Your task to perform on an android device: Go to battery settings Image 0: 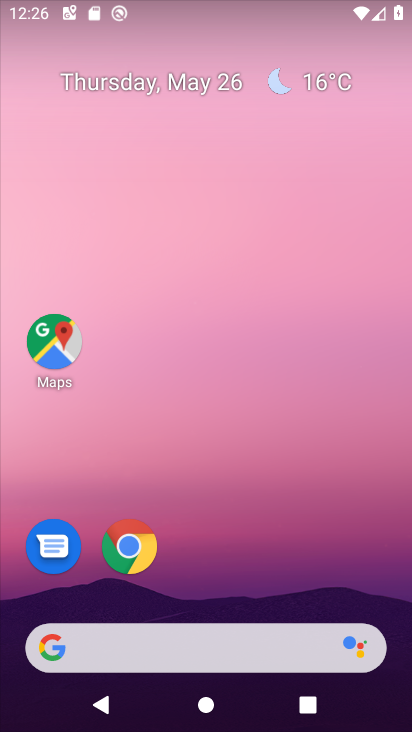
Step 0: drag from (179, 586) to (200, 189)
Your task to perform on an android device: Go to battery settings Image 1: 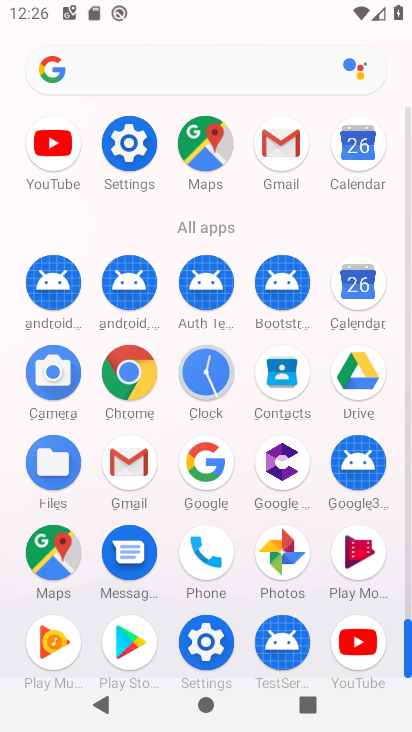
Step 1: click (128, 142)
Your task to perform on an android device: Go to battery settings Image 2: 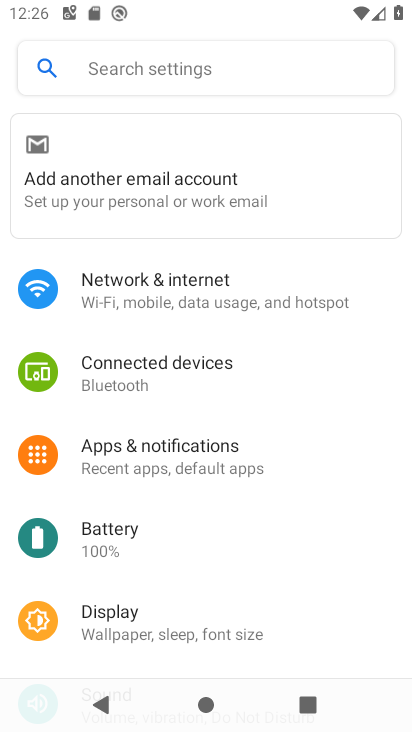
Step 2: drag from (164, 591) to (203, 291)
Your task to perform on an android device: Go to battery settings Image 3: 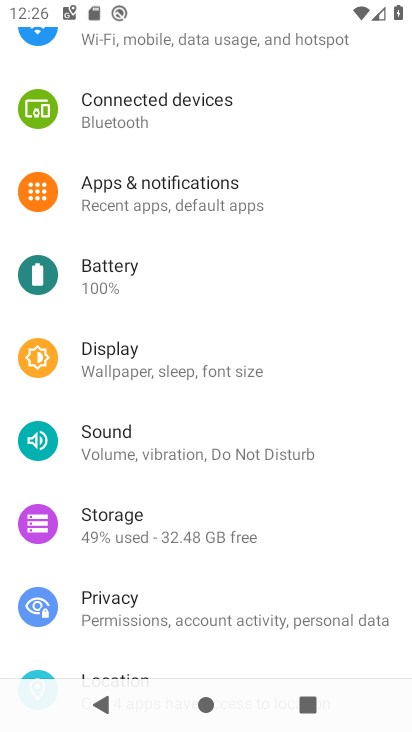
Step 3: click (94, 275)
Your task to perform on an android device: Go to battery settings Image 4: 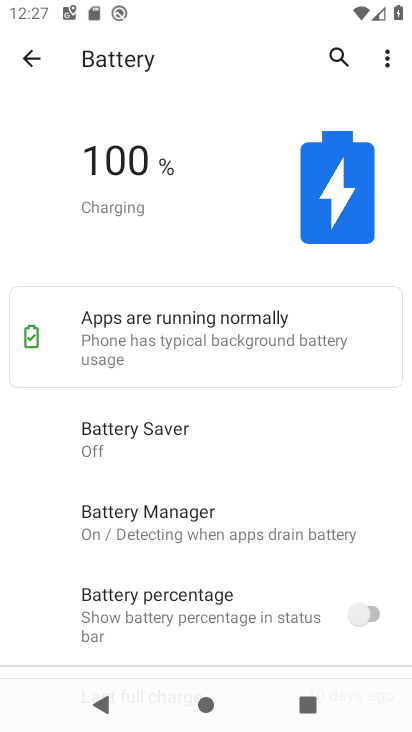
Step 4: task complete